Your task to perform on an android device: turn on location history Image 0: 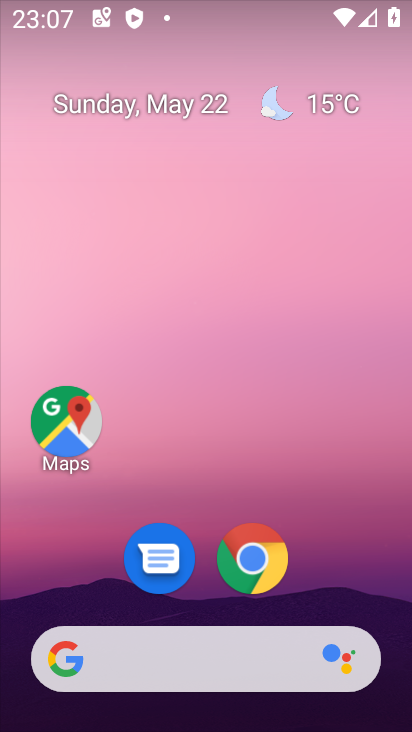
Step 0: click (70, 425)
Your task to perform on an android device: turn on location history Image 1: 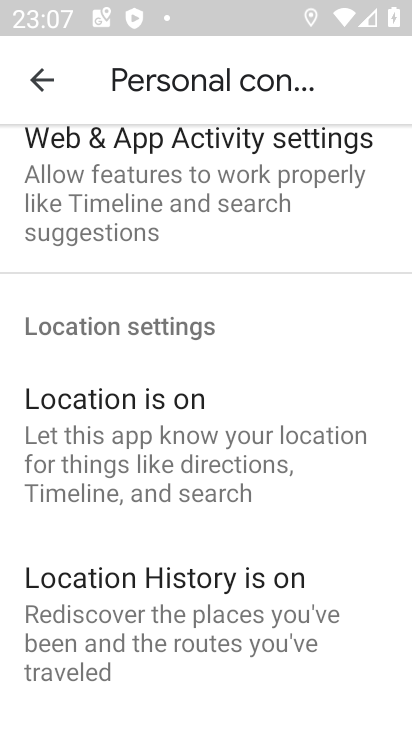
Step 1: click (36, 87)
Your task to perform on an android device: turn on location history Image 2: 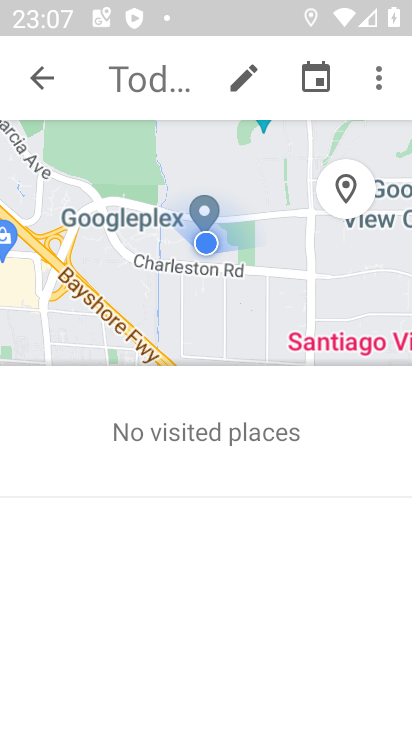
Step 2: click (380, 80)
Your task to perform on an android device: turn on location history Image 3: 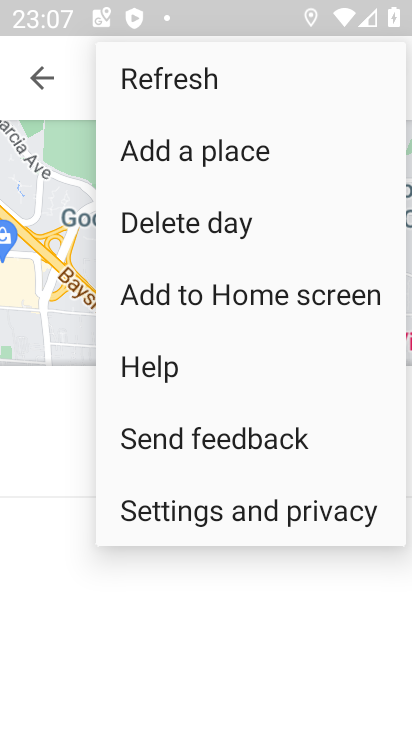
Step 3: click (194, 509)
Your task to perform on an android device: turn on location history Image 4: 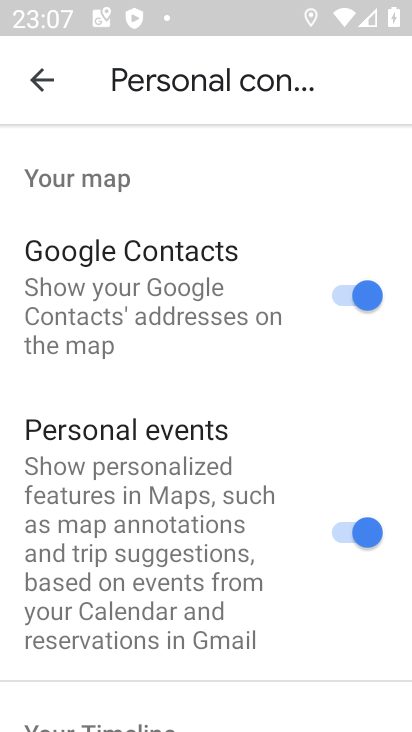
Step 4: drag from (174, 591) to (193, 122)
Your task to perform on an android device: turn on location history Image 5: 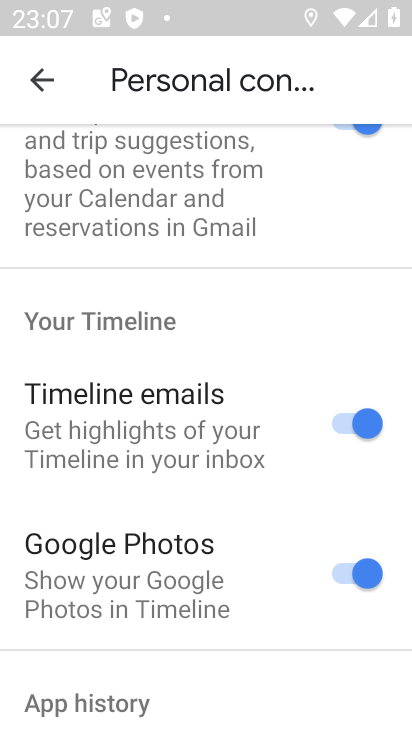
Step 5: drag from (162, 602) to (168, 148)
Your task to perform on an android device: turn on location history Image 6: 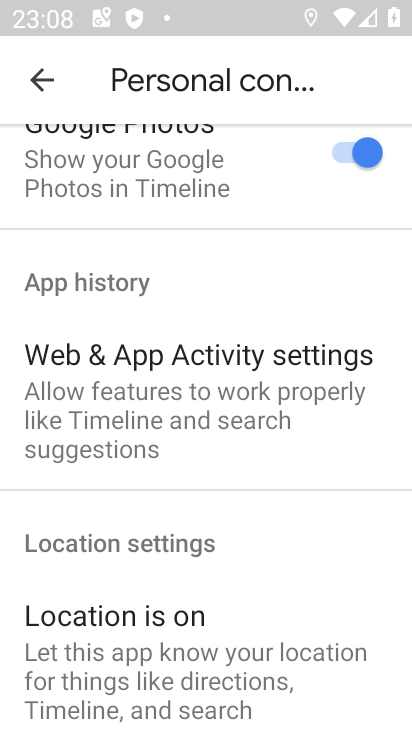
Step 6: drag from (139, 538) to (153, 144)
Your task to perform on an android device: turn on location history Image 7: 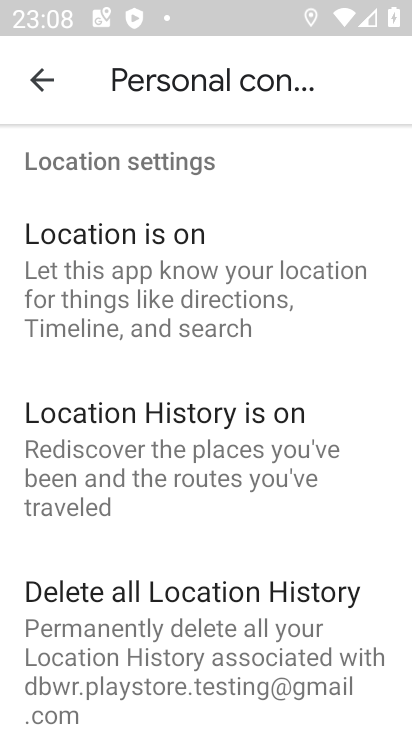
Step 7: drag from (130, 547) to (151, 233)
Your task to perform on an android device: turn on location history Image 8: 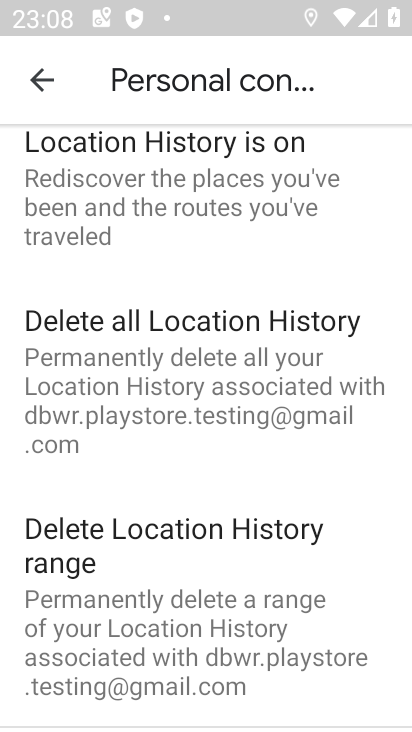
Step 8: click (143, 190)
Your task to perform on an android device: turn on location history Image 9: 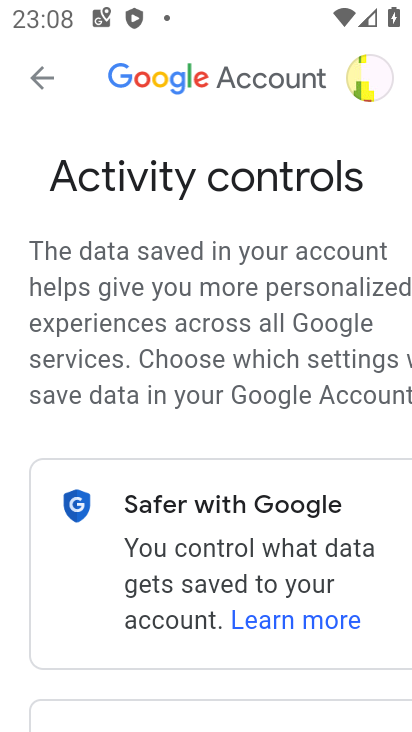
Step 9: task complete